Your task to perform on an android device: Search for pizza restaurants on Maps Image 0: 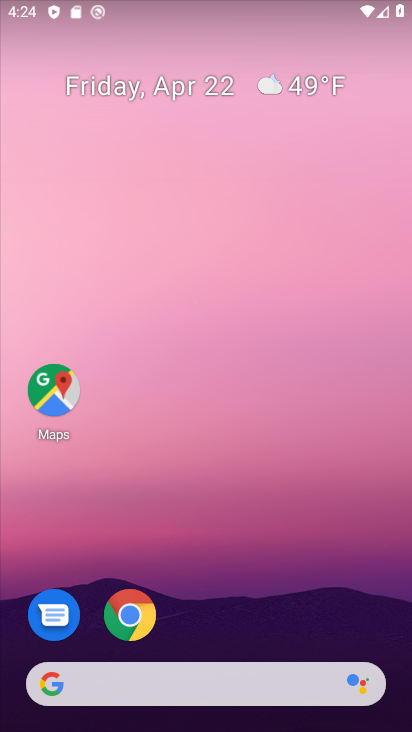
Step 0: click (55, 389)
Your task to perform on an android device: Search for pizza restaurants on Maps Image 1: 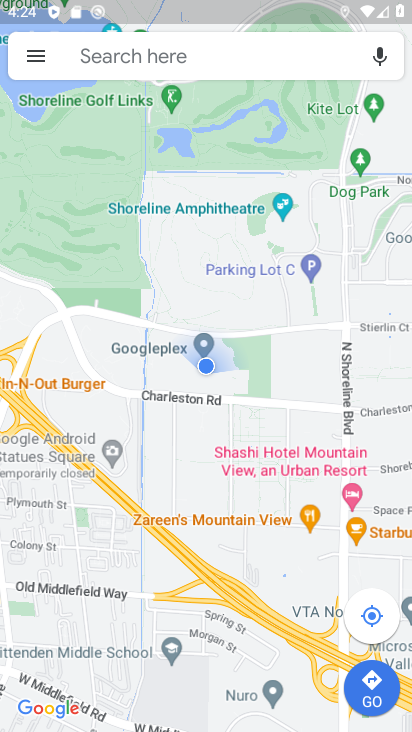
Step 1: click (189, 58)
Your task to perform on an android device: Search for pizza restaurants on Maps Image 2: 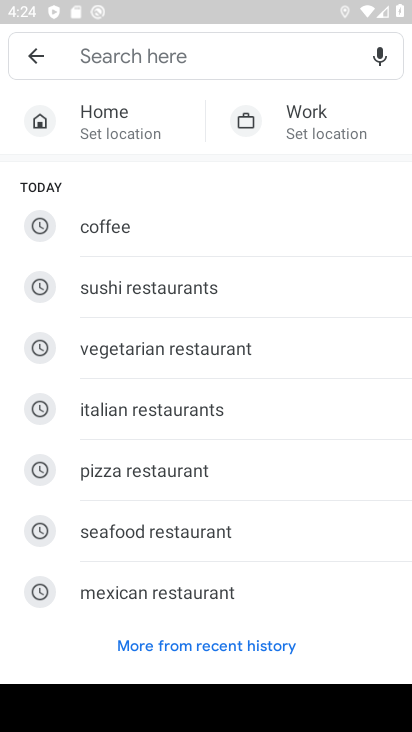
Step 2: type "pizza restaurants"
Your task to perform on an android device: Search for pizza restaurants on Maps Image 3: 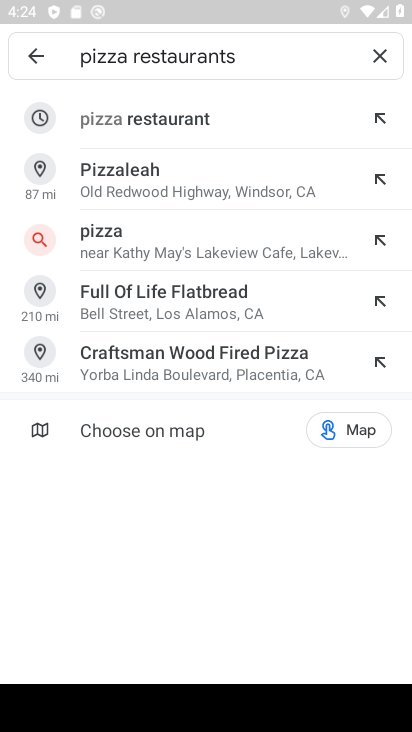
Step 3: click (180, 127)
Your task to perform on an android device: Search for pizza restaurants on Maps Image 4: 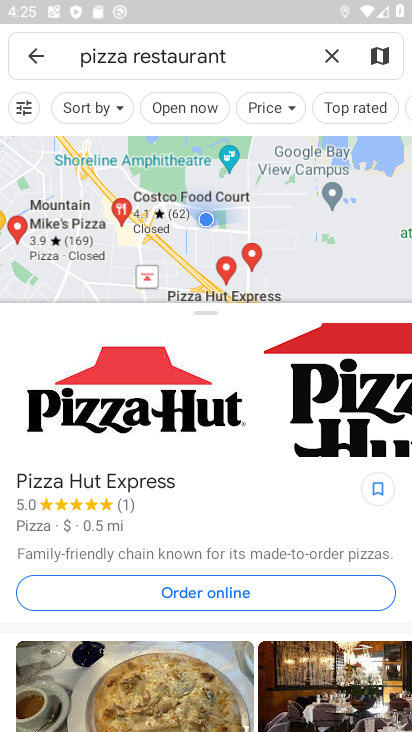
Step 4: task complete